Your task to perform on an android device: make emails show in primary in the gmail app Image 0: 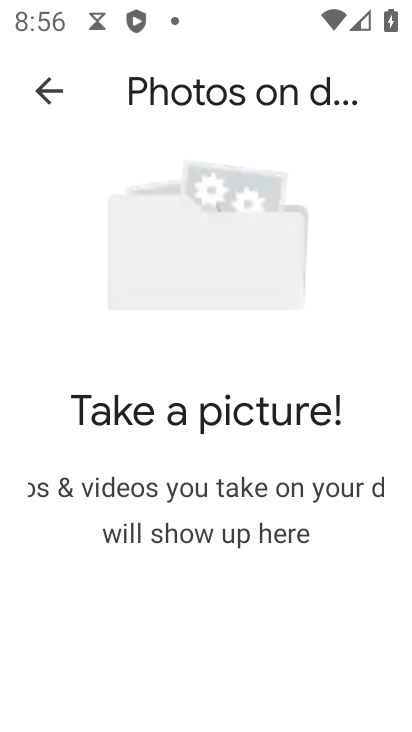
Step 0: click (38, 87)
Your task to perform on an android device: make emails show in primary in the gmail app Image 1: 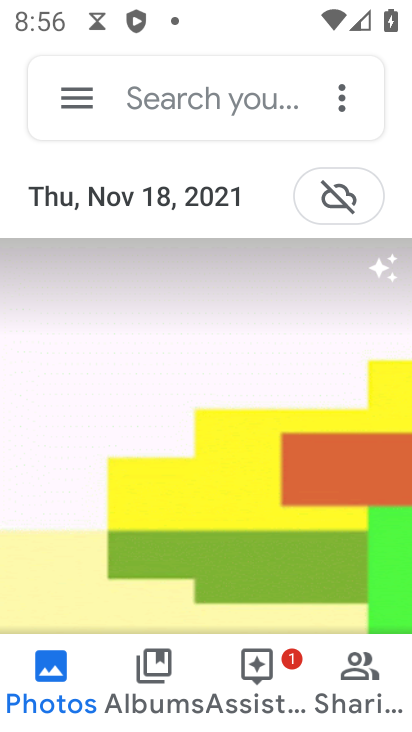
Step 1: press back button
Your task to perform on an android device: make emails show in primary in the gmail app Image 2: 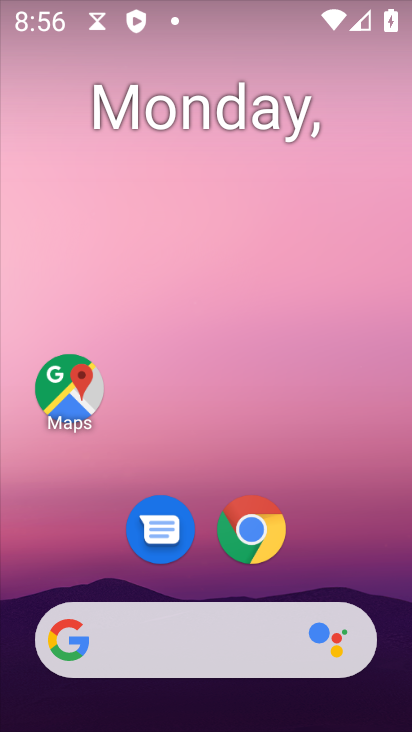
Step 2: drag from (319, 639) to (219, 253)
Your task to perform on an android device: make emails show in primary in the gmail app Image 3: 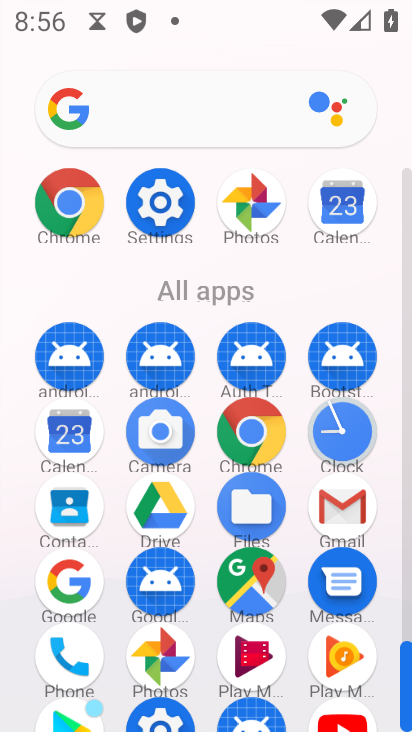
Step 3: click (344, 506)
Your task to perform on an android device: make emails show in primary in the gmail app Image 4: 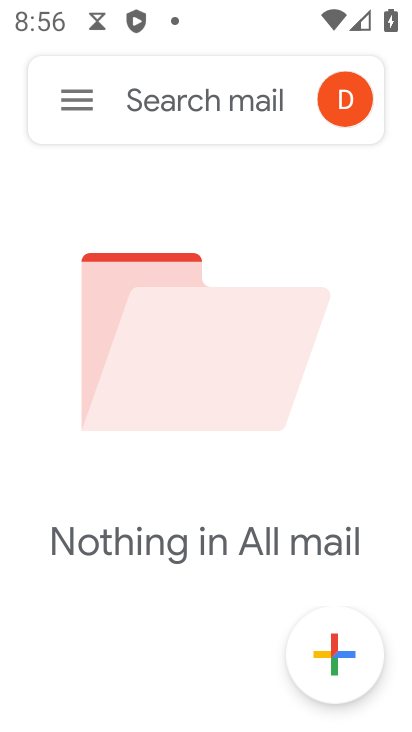
Step 4: press back button
Your task to perform on an android device: make emails show in primary in the gmail app Image 5: 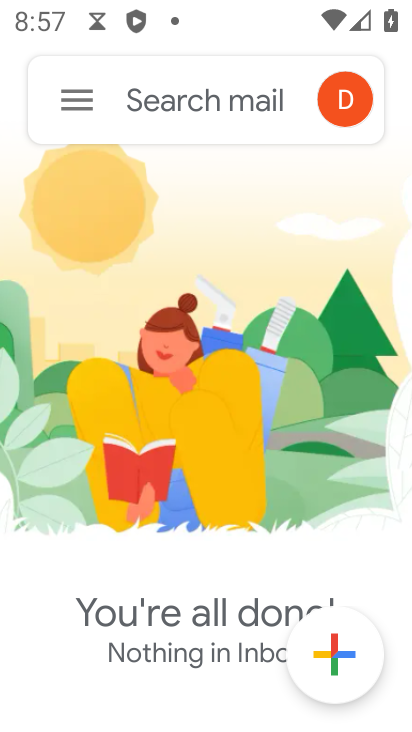
Step 5: click (74, 100)
Your task to perform on an android device: make emails show in primary in the gmail app Image 6: 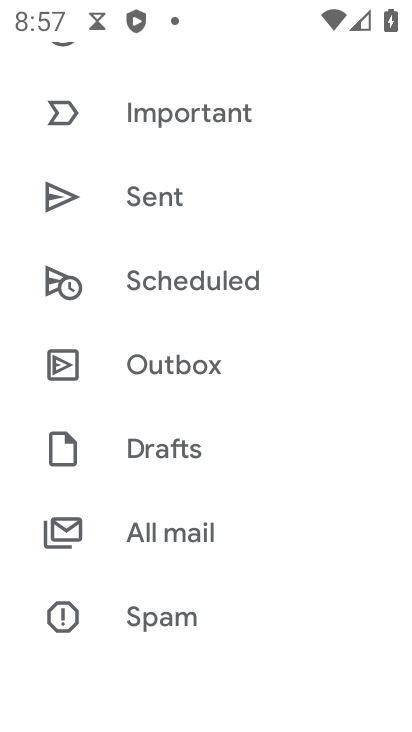
Step 6: drag from (198, 599) to (157, 254)
Your task to perform on an android device: make emails show in primary in the gmail app Image 7: 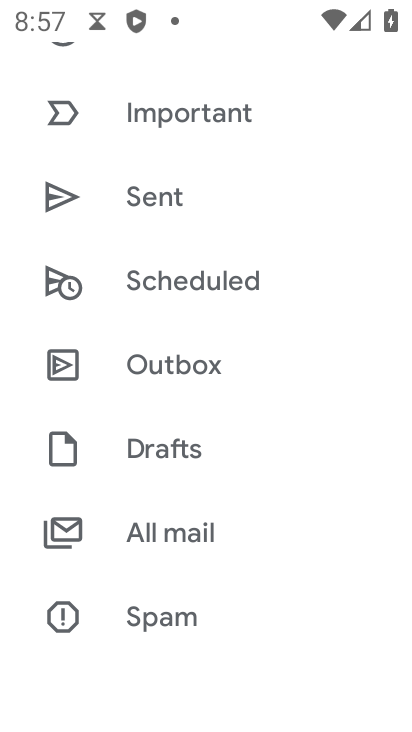
Step 7: drag from (228, 497) to (227, 229)
Your task to perform on an android device: make emails show in primary in the gmail app Image 8: 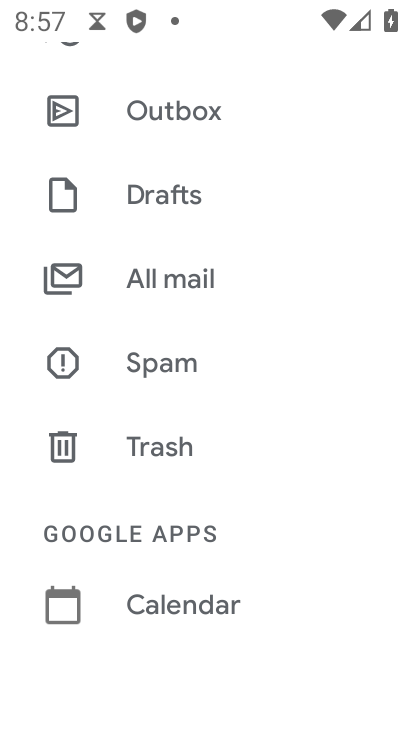
Step 8: drag from (163, 138) to (246, 124)
Your task to perform on an android device: make emails show in primary in the gmail app Image 9: 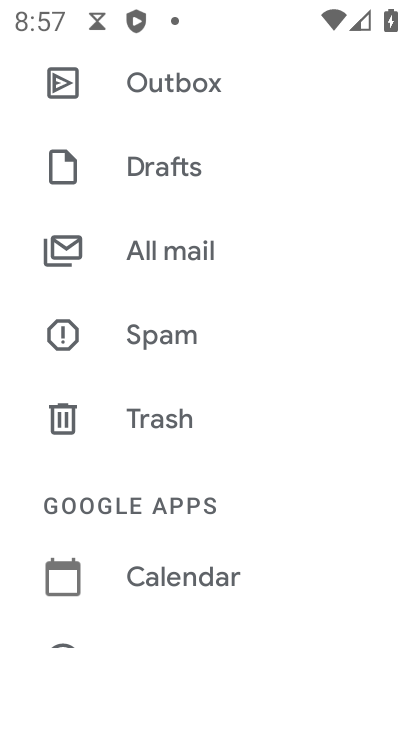
Step 9: drag from (184, 618) to (149, 125)
Your task to perform on an android device: make emails show in primary in the gmail app Image 10: 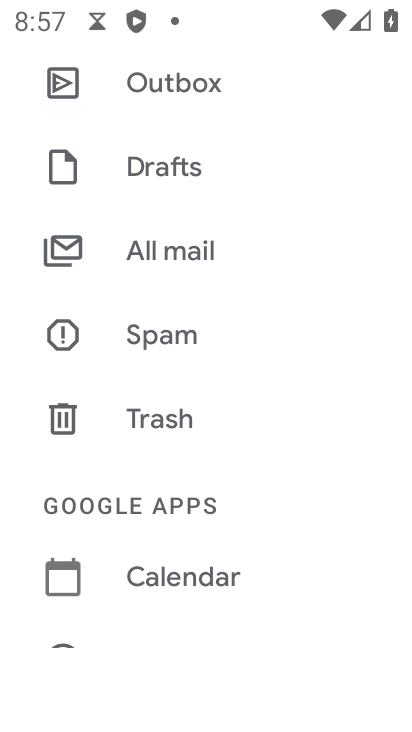
Step 10: click (138, 322)
Your task to perform on an android device: make emails show in primary in the gmail app Image 11: 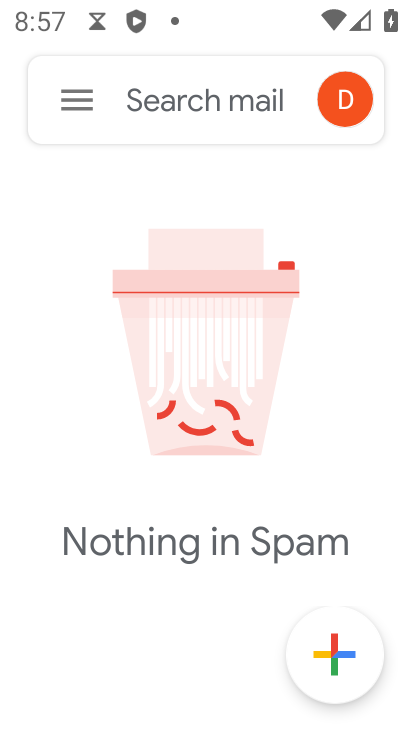
Step 11: click (66, 106)
Your task to perform on an android device: make emails show in primary in the gmail app Image 12: 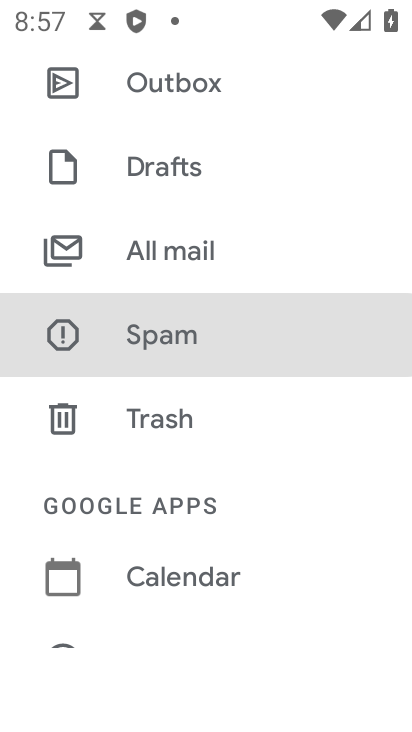
Step 12: drag from (195, 537) to (140, 133)
Your task to perform on an android device: make emails show in primary in the gmail app Image 13: 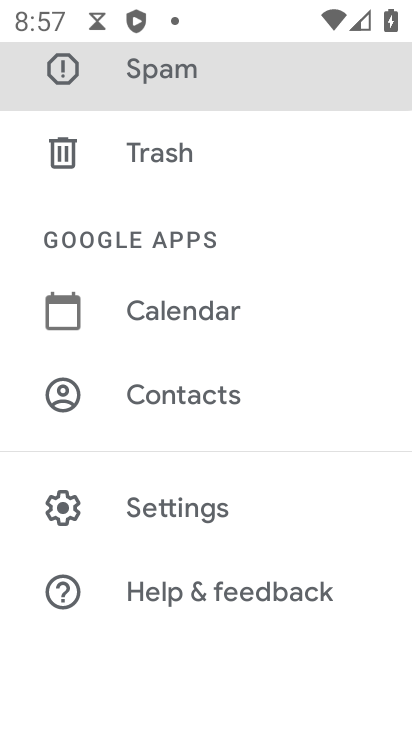
Step 13: drag from (192, 445) to (185, 95)
Your task to perform on an android device: make emails show in primary in the gmail app Image 14: 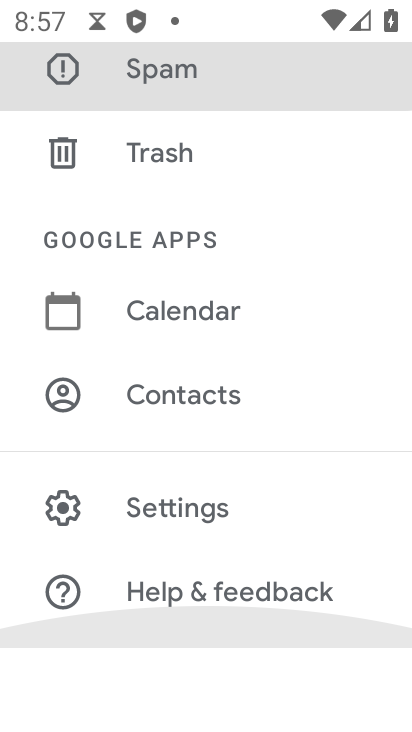
Step 14: drag from (259, 523) to (235, 78)
Your task to perform on an android device: make emails show in primary in the gmail app Image 15: 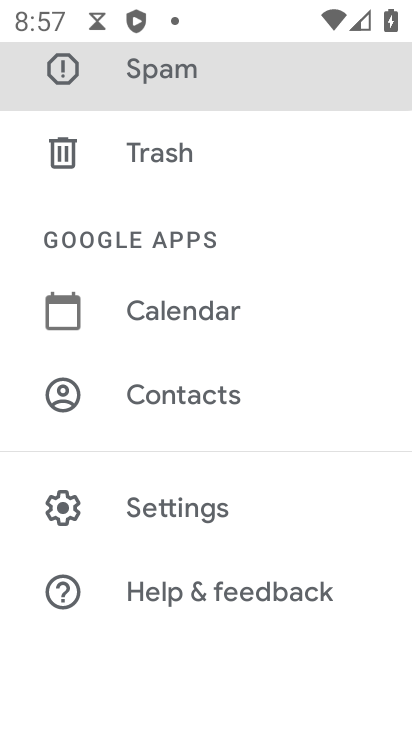
Step 15: click (176, 493)
Your task to perform on an android device: make emails show in primary in the gmail app Image 16: 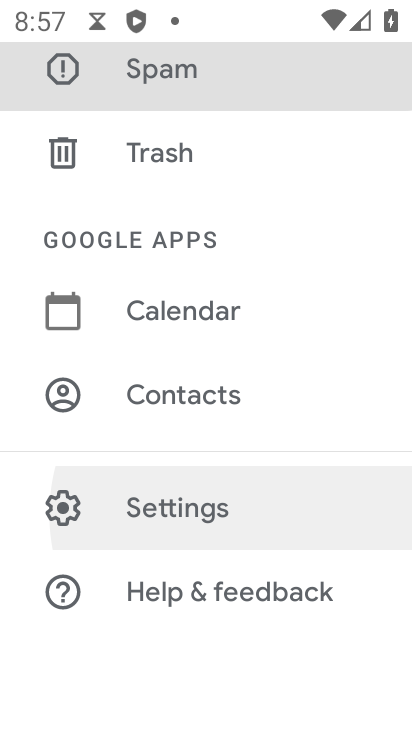
Step 16: click (174, 503)
Your task to perform on an android device: make emails show in primary in the gmail app Image 17: 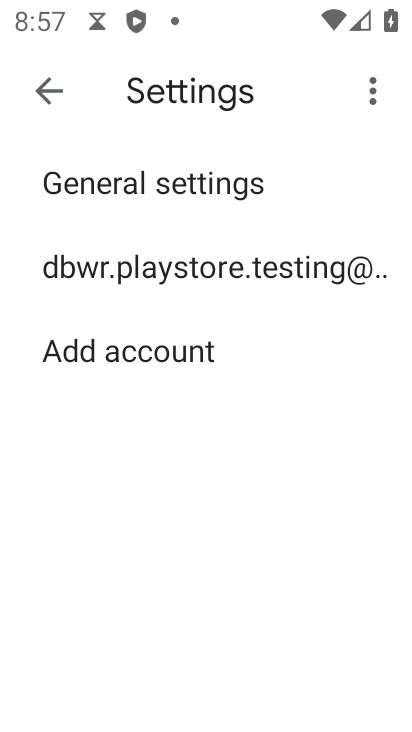
Step 17: click (176, 277)
Your task to perform on an android device: make emails show in primary in the gmail app Image 18: 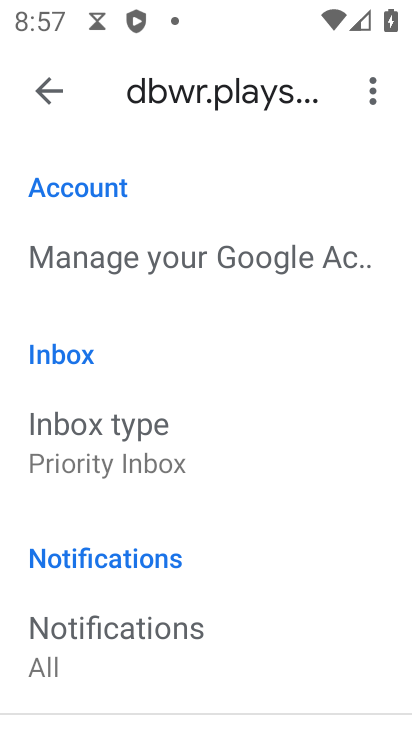
Step 18: drag from (165, 581) to (165, 190)
Your task to perform on an android device: make emails show in primary in the gmail app Image 19: 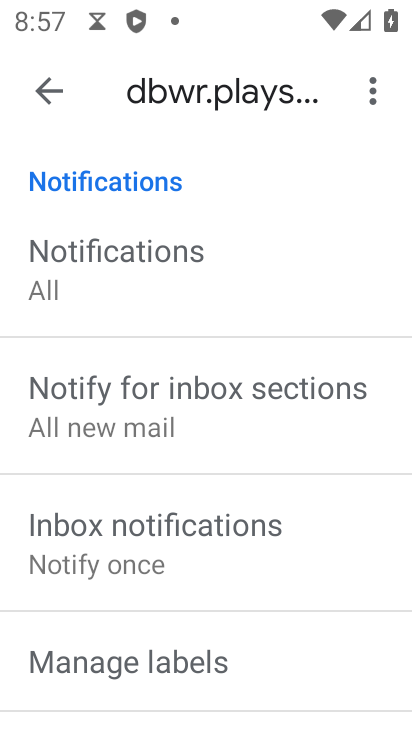
Step 19: drag from (91, 210) to (123, 510)
Your task to perform on an android device: make emails show in primary in the gmail app Image 20: 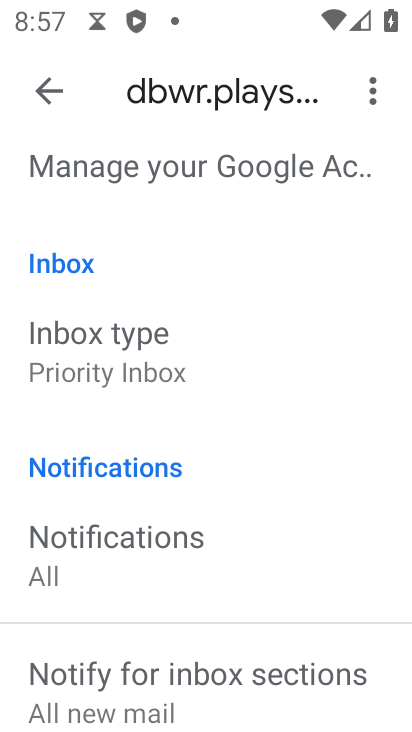
Step 20: click (87, 364)
Your task to perform on an android device: make emails show in primary in the gmail app Image 21: 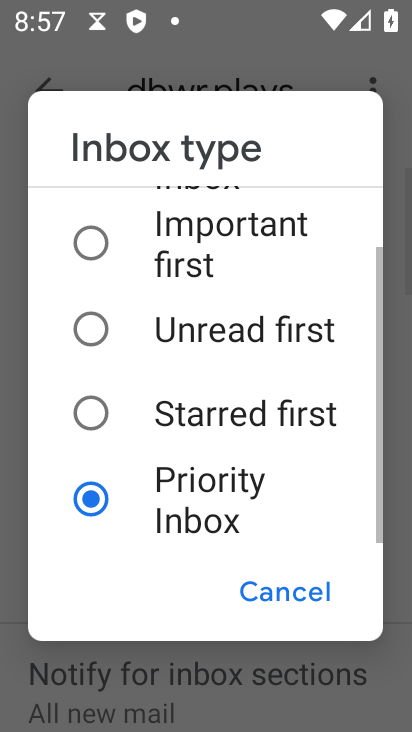
Step 21: click (82, 245)
Your task to perform on an android device: make emails show in primary in the gmail app Image 22: 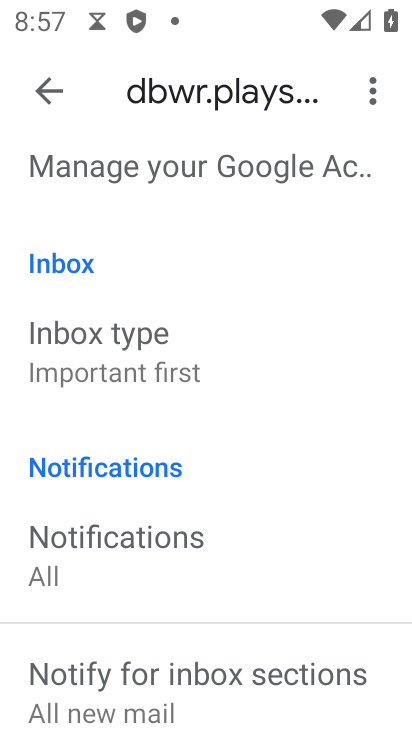
Step 22: click (91, 358)
Your task to perform on an android device: make emails show in primary in the gmail app Image 23: 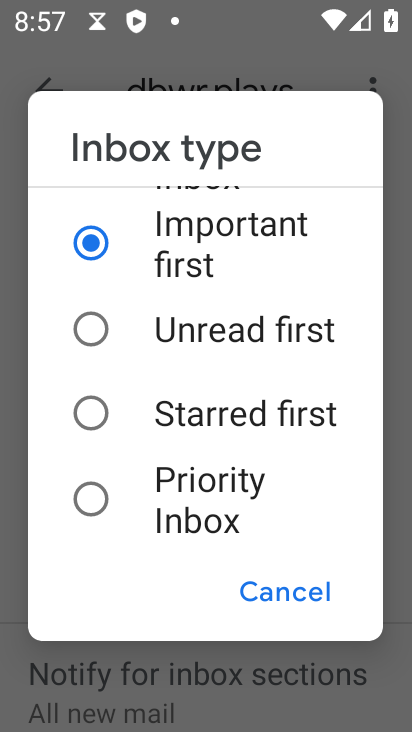
Step 23: click (290, 590)
Your task to perform on an android device: make emails show in primary in the gmail app Image 24: 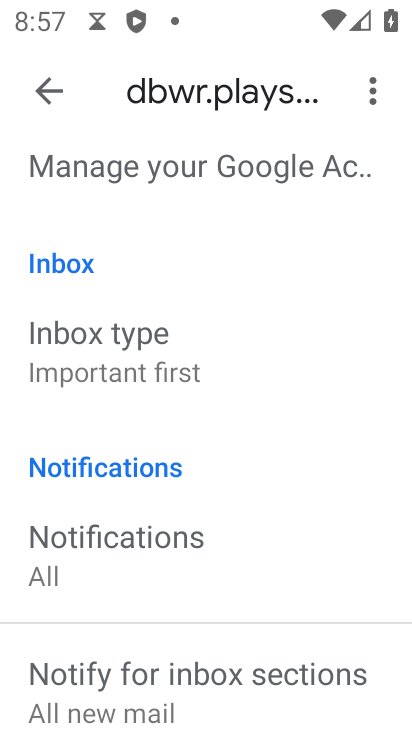
Step 24: drag from (129, 549) to (157, 266)
Your task to perform on an android device: make emails show in primary in the gmail app Image 25: 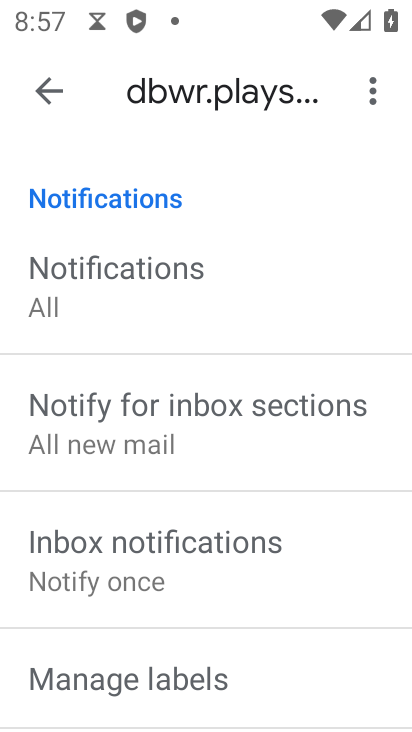
Step 25: drag from (116, 286) to (140, 504)
Your task to perform on an android device: make emails show in primary in the gmail app Image 26: 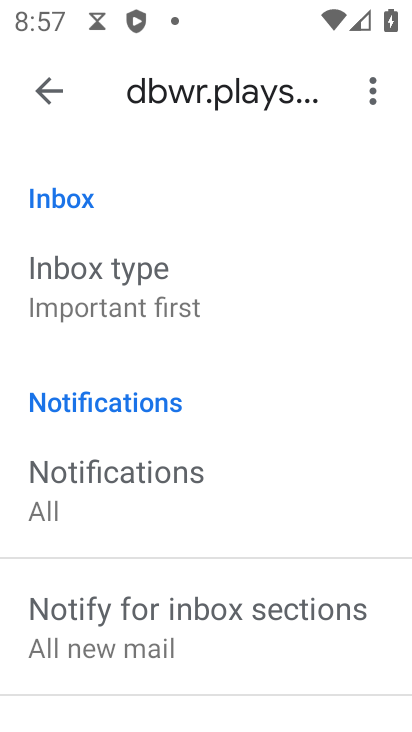
Step 26: click (95, 300)
Your task to perform on an android device: make emails show in primary in the gmail app Image 27: 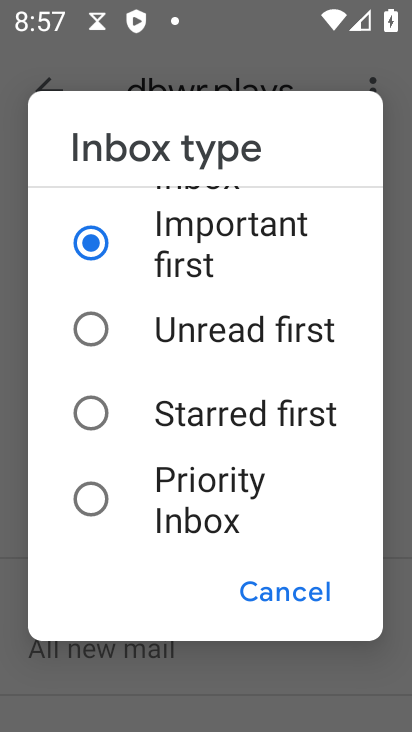
Step 27: drag from (346, 335) to (313, 132)
Your task to perform on an android device: make emails show in primary in the gmail app Image 28: 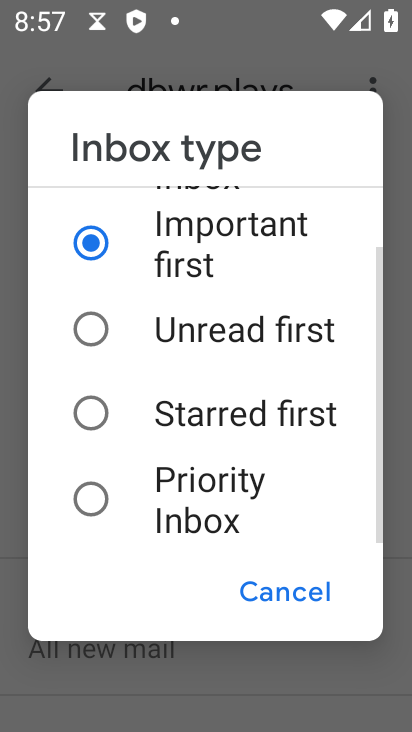
Step 28: drag from (312, 244) to (315, 530)
Your task to perform on an android device: make emails show in primary in the gmail app Image 29: 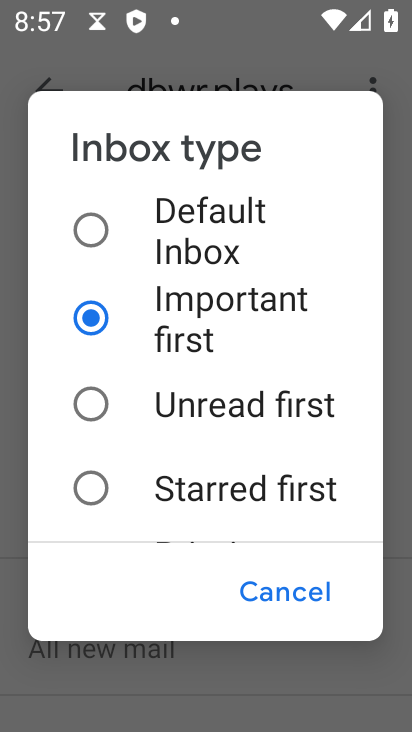
Step 29: click (94, 230)
Your task to perform on an android device: make emails show in primary in the gmail app Image 30: 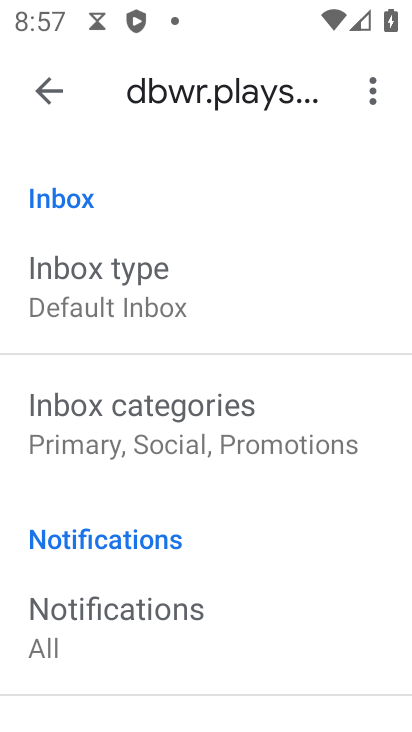
Step 30: click (168, 437)
Your task to perform on an android device: make emails show in primary in the gmail app Image 31: 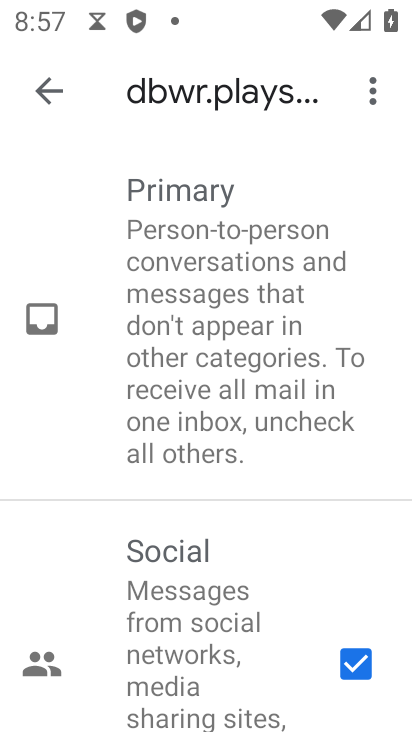
Step 31: drag from (214, 602) to (213, 258)
Your task to perform on an android device: make emails show in primary in the gmail app Image 32: 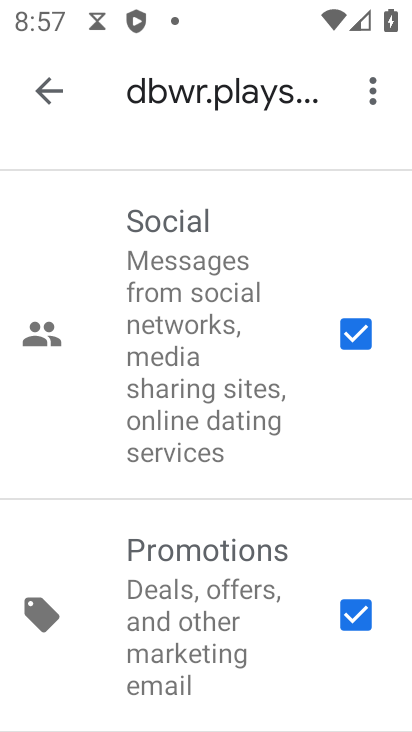
Step 32: drag from (102, 257) to (247, 527)
Your task to perform on an android device: make emails show in primary in the gmail app Image 33: 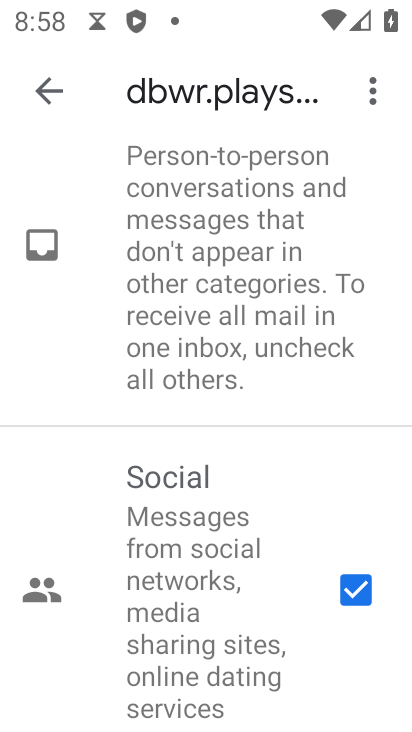
Step 33: click (55, 251)
Your task to perform on an android device: make emails show in primary in the gmail app Image 34: 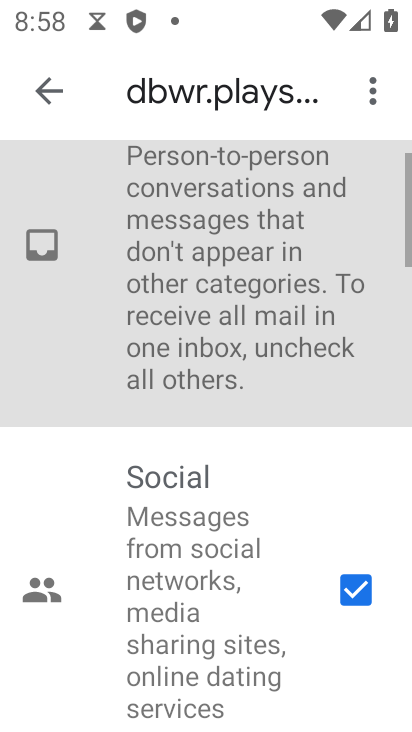
Step 34: click (65, 248)
Your task to perform on an android device: make emails show in primary in the gmail app Image 35: 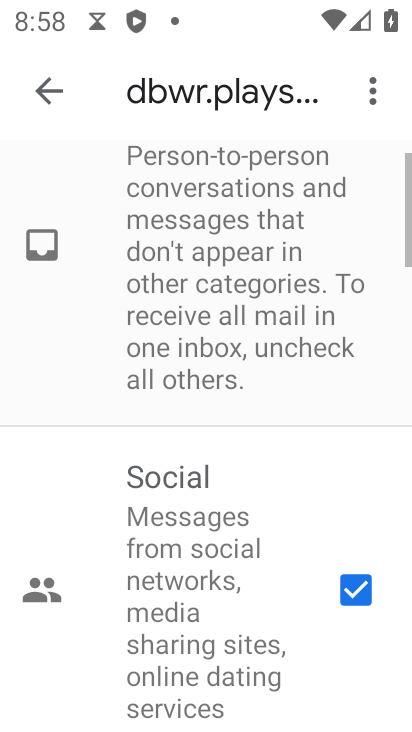
Step 35: click (69, 248)
Your task to perform on an android device: make emails show in primary in the gmail app Image 36: 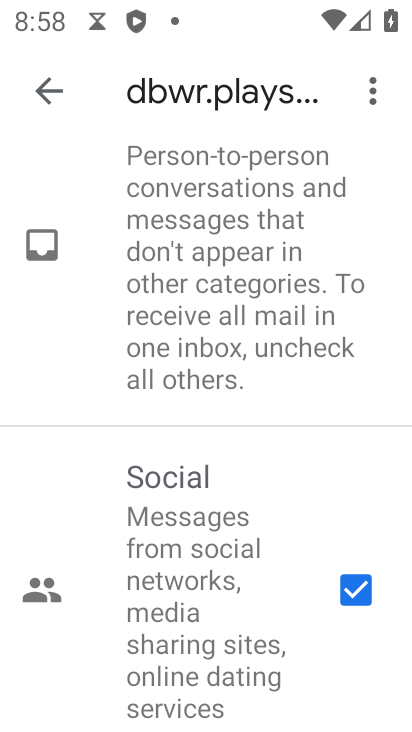
Step 36: task complete